Your task to perform on an android device: Add "bose quietcomfort 35" to the cart on walmart, then select checkout. Image 0: 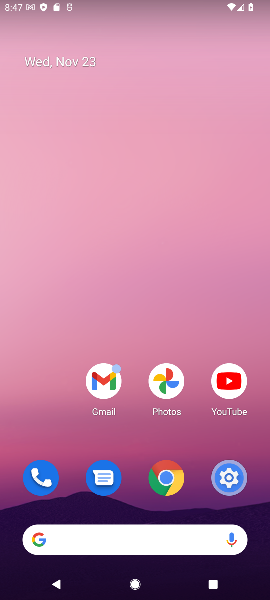
Step 0: click (121, 540)
Your task to perform on an android device: Add "bose quietcomfort 35" to the cart on walmart, then select checkout. Image 1: 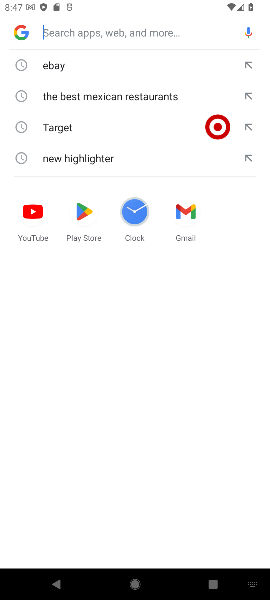
Step 1: type "walmart"
Your task to perform on an android device: Add "bose quietcomfort 35" to the cart on walmart, then select checkout. Image 2: 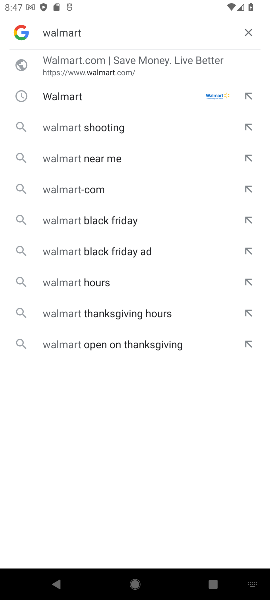
Step 2: click (81, 70)
Your task to perform on an android device: Add "bose quietcomfort 35" to the cart on walmart, then select checkout. Image 3: 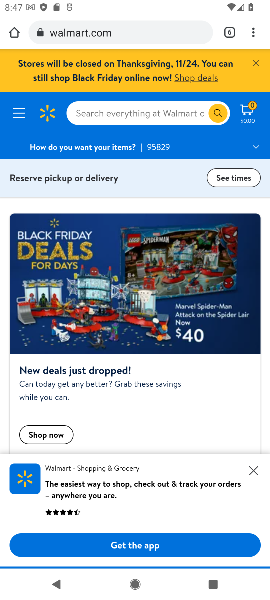
Step 3: click (156, 118)
Your task to perform on an android device: Add "bose quietcomfort 35" to the cart on walmart, then select checkout. Image 4: 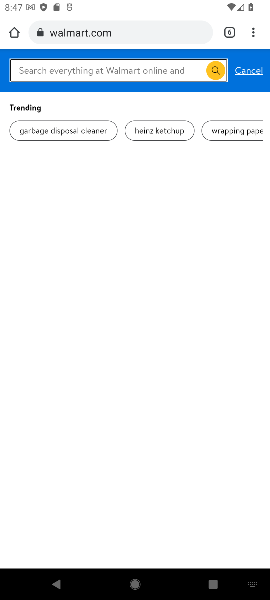
Step 4: type "bose quietcomfort 35"
Your task to perform on an android device: Add "bose quietcomfort 35" to the cart on walmart, then select checkout. Image 5: 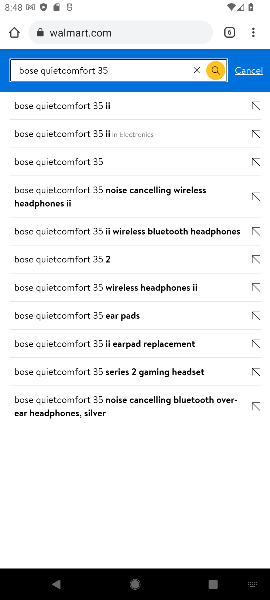
Step 5: click (79, 103)
Your task to perform on an android device: Add "bose quietcomfort 35" to the cart on walmart, then select checkout. Image 6: 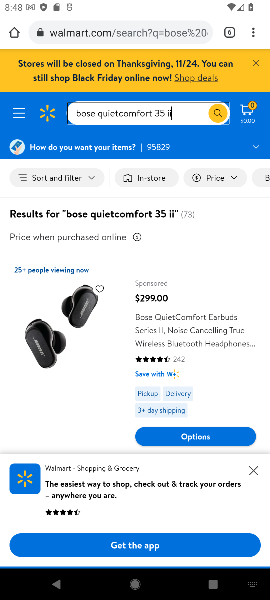
Step 6: click (202, 435)
Your task to perform on an android device: Add "bose quietcomfort 35" to the cart on walmart, then select checkout. Image 7: 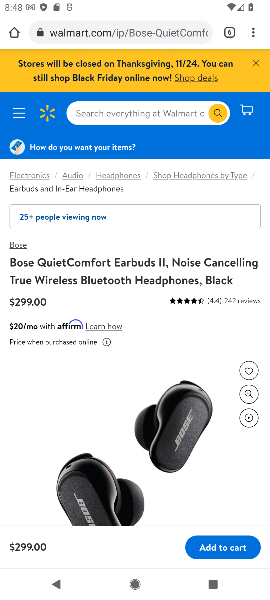
Step 7: click (226, 549)
Your task to perform on an android device: Add "bose quietcomfort 35" to the cart on walmart, then select checkout. Image 8: 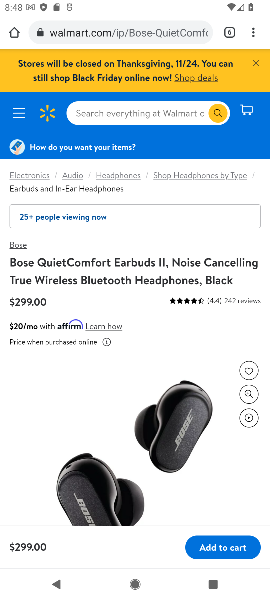
Step 8: click (226, 549)
Your task to perform on an android device: Add "bose quietcomfort 35" to the cart on walmart, then select checkout. Image 9: 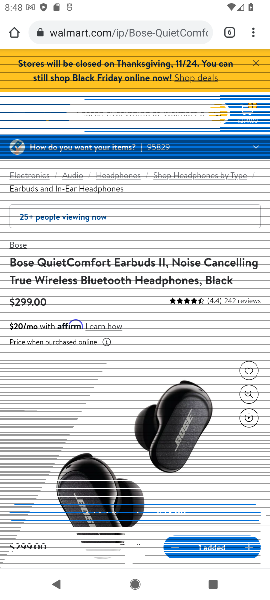
Step 9: task complete